Your task to perform on an android device: open app "eBay: The shopping marketplace" Image 0: 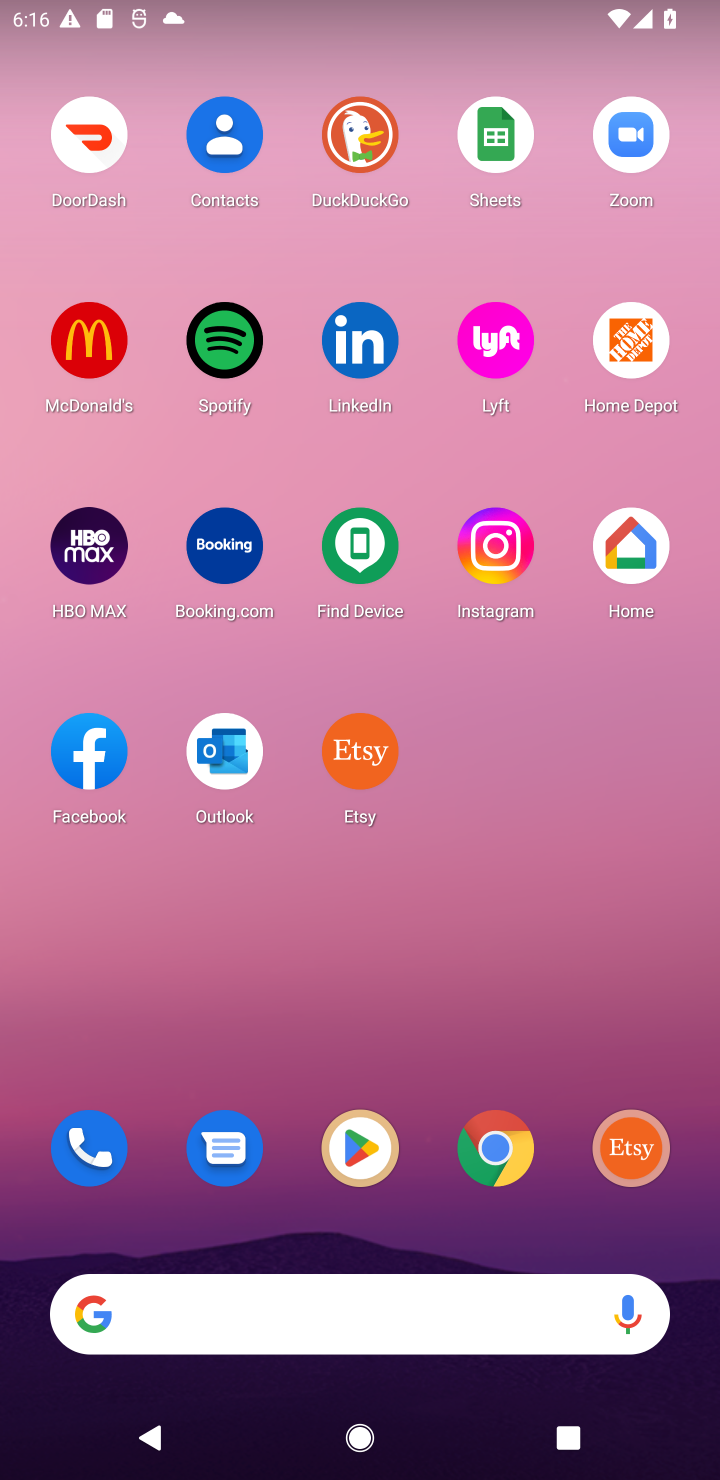
Step 0: drag from (452, 1234) to (516, 174)
Your task to perform on an android device: open app "eBay: The shopping marketplace" Image 1: 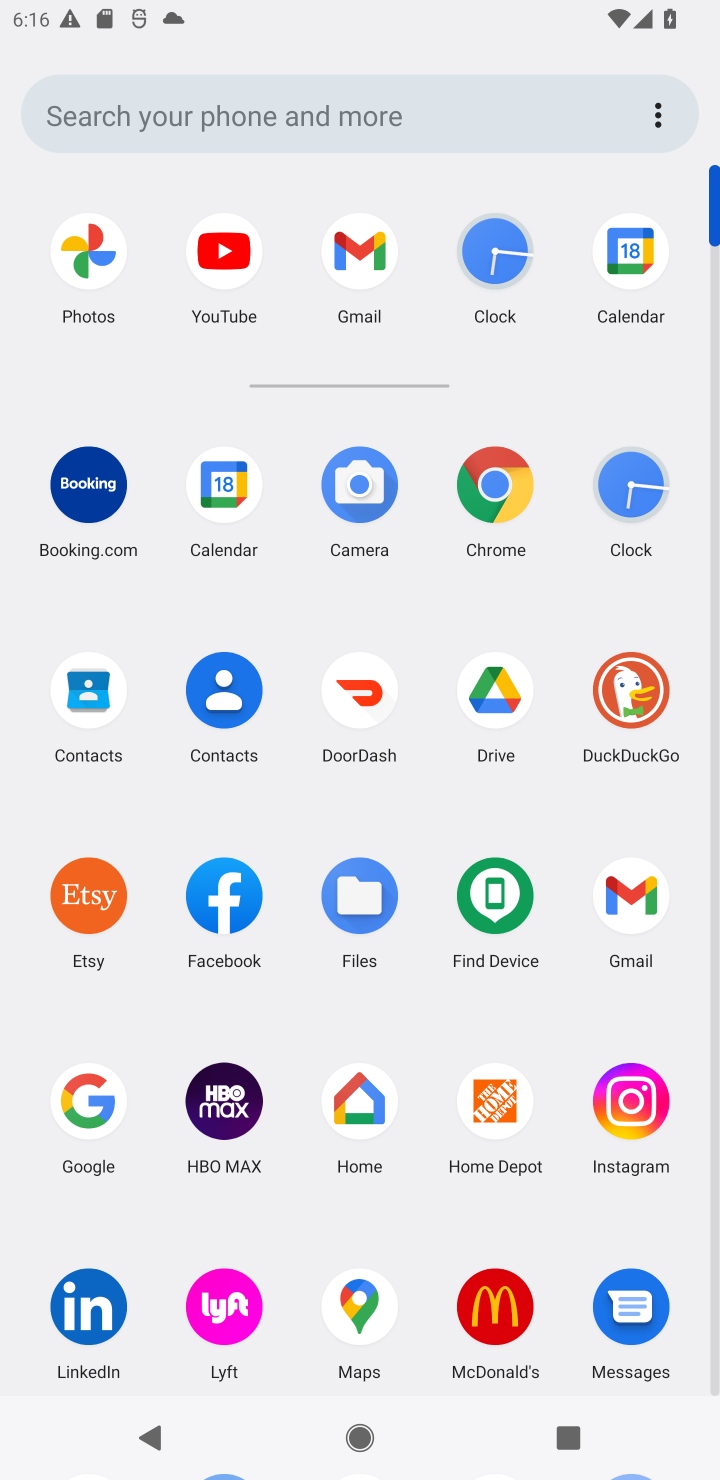
Step 1: drag from (444, 1232) to (442, 498)
Your task to perform on an android device: open app "eBay: The shopping marketplace" Image 2: 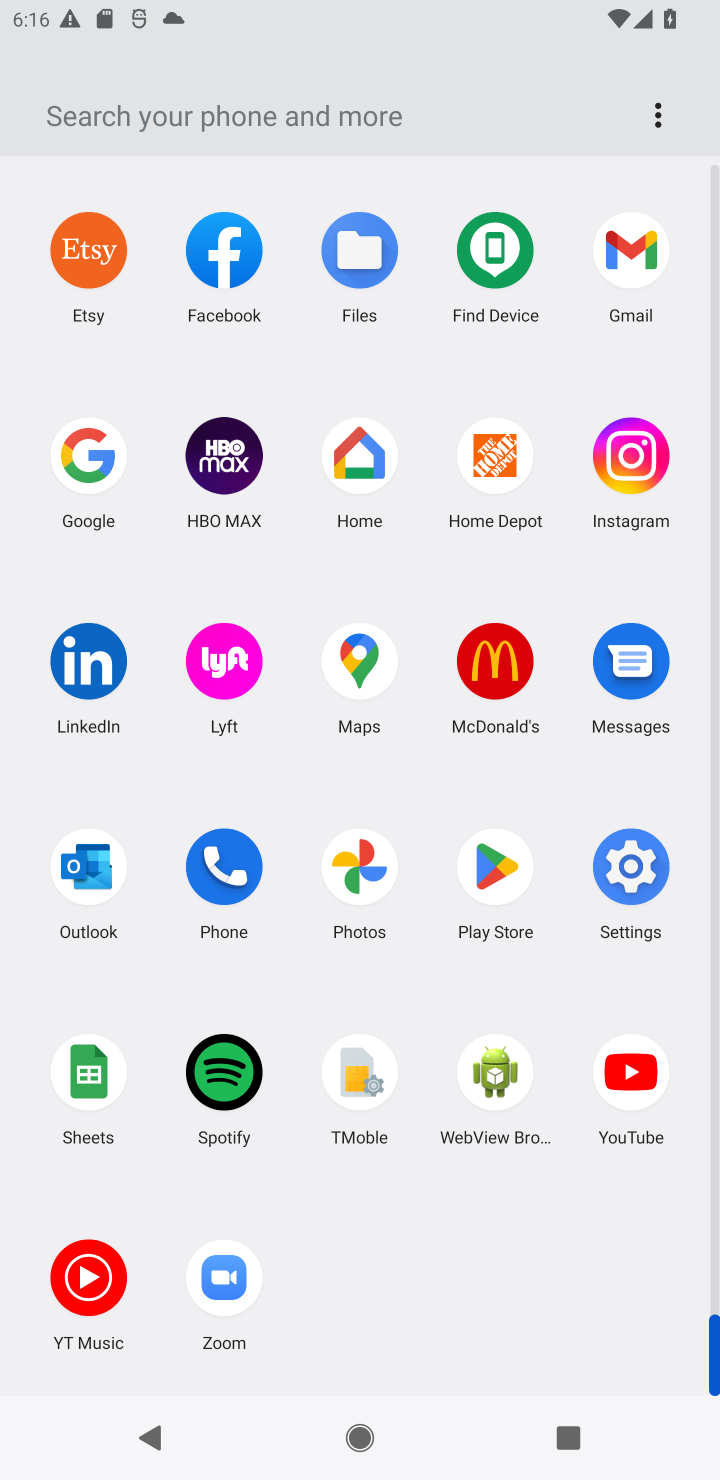
Step 2: click (479, 870)
Your task to perform on an android device: open app "eBay: The shopping marketplace" Image 3: 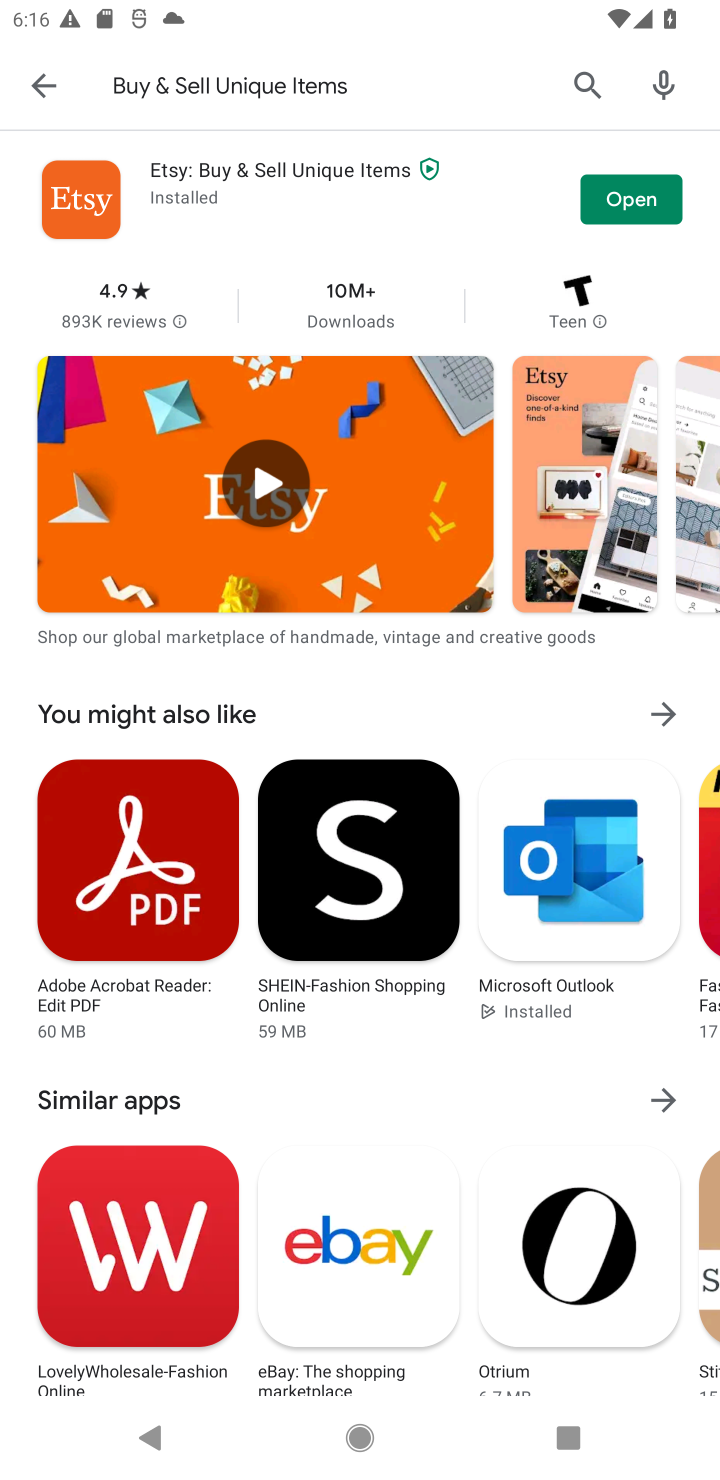
Step 3: press back button
Your task to perform on an android device: open app "eBay: The shopping marketplace" Image 4: 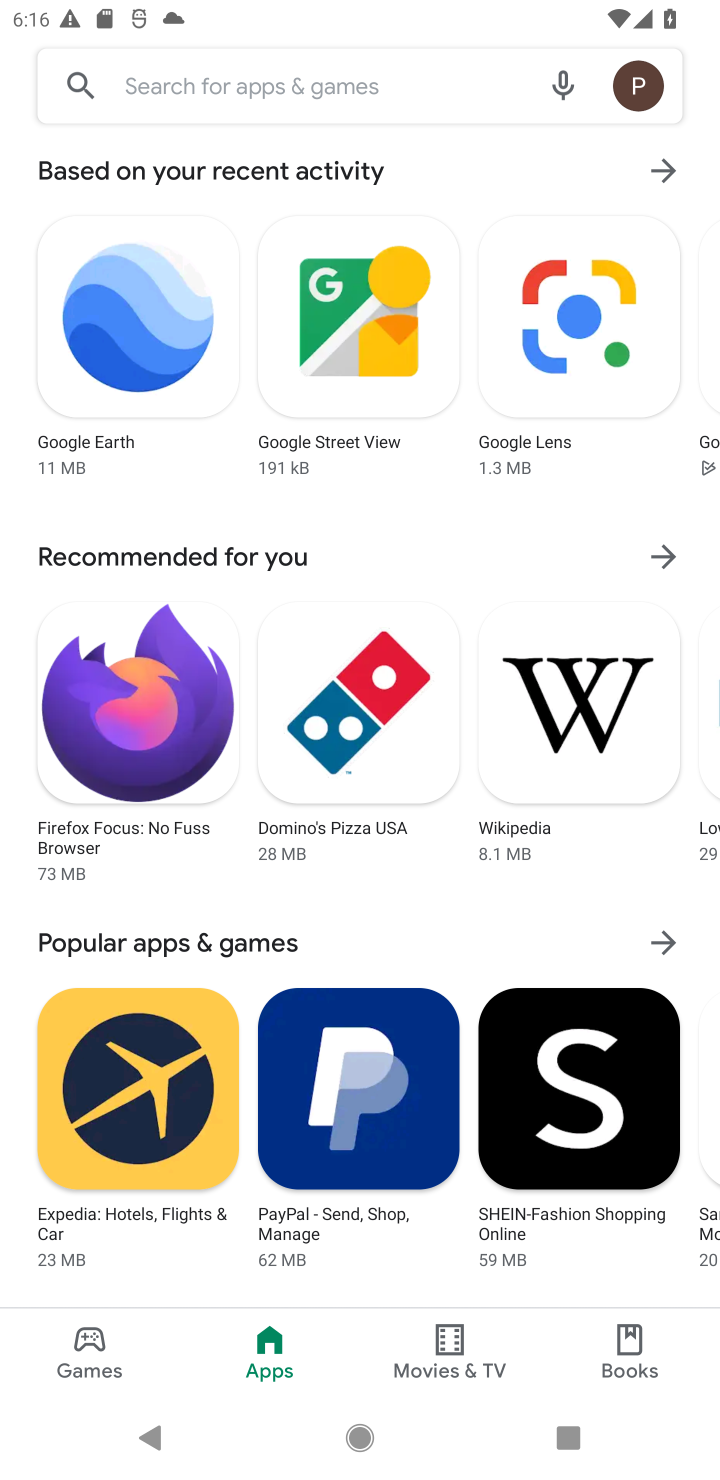
Step 4: click (263, 91)
Your task to perform on an android device: open app "eBay: The shopping marketplace" Image 5: 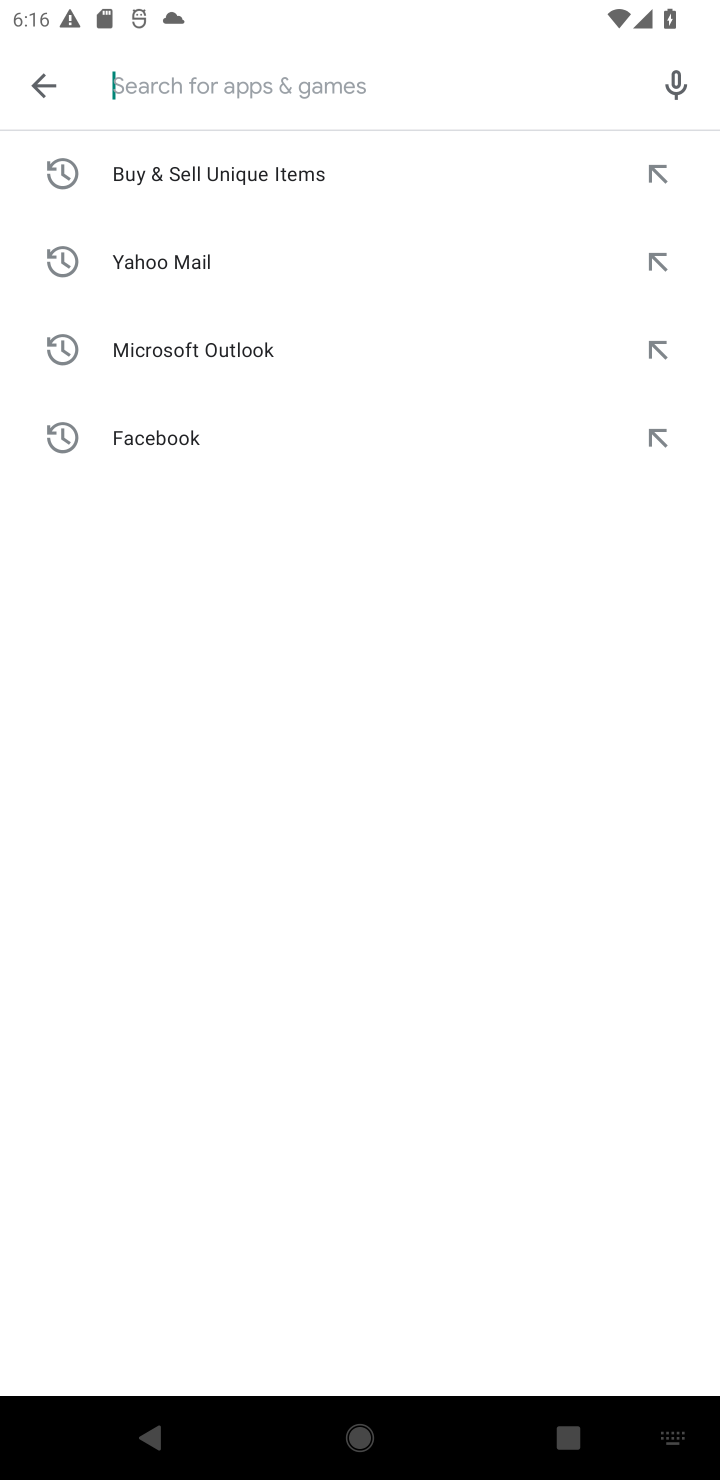
Step 5: type "eBay: The shopping marketplace"
Your task to perform on an android device: open app "eBay: The shopping marketplace" Image 6: 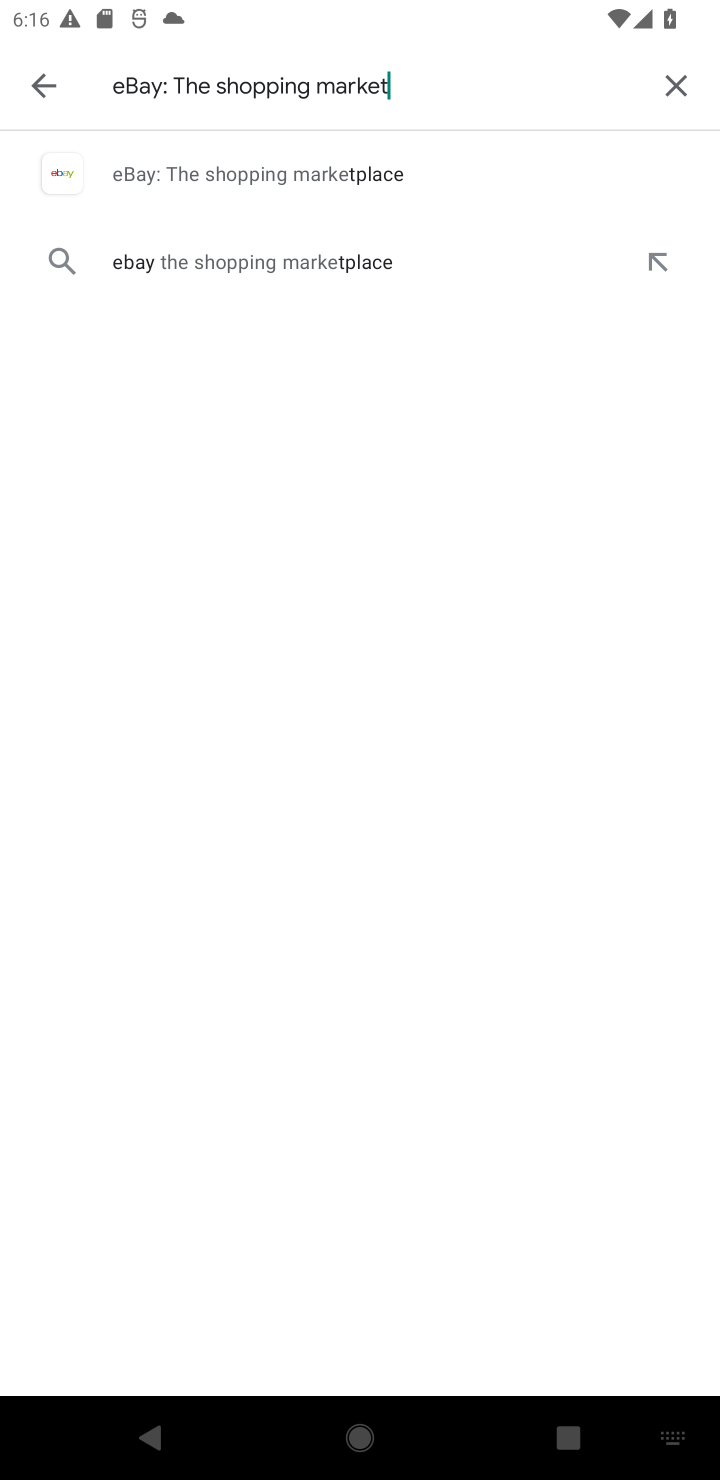
Step 6: press enter
Your task to perform on an android device: open app "eBay: The shopping marketplace" Image 7: 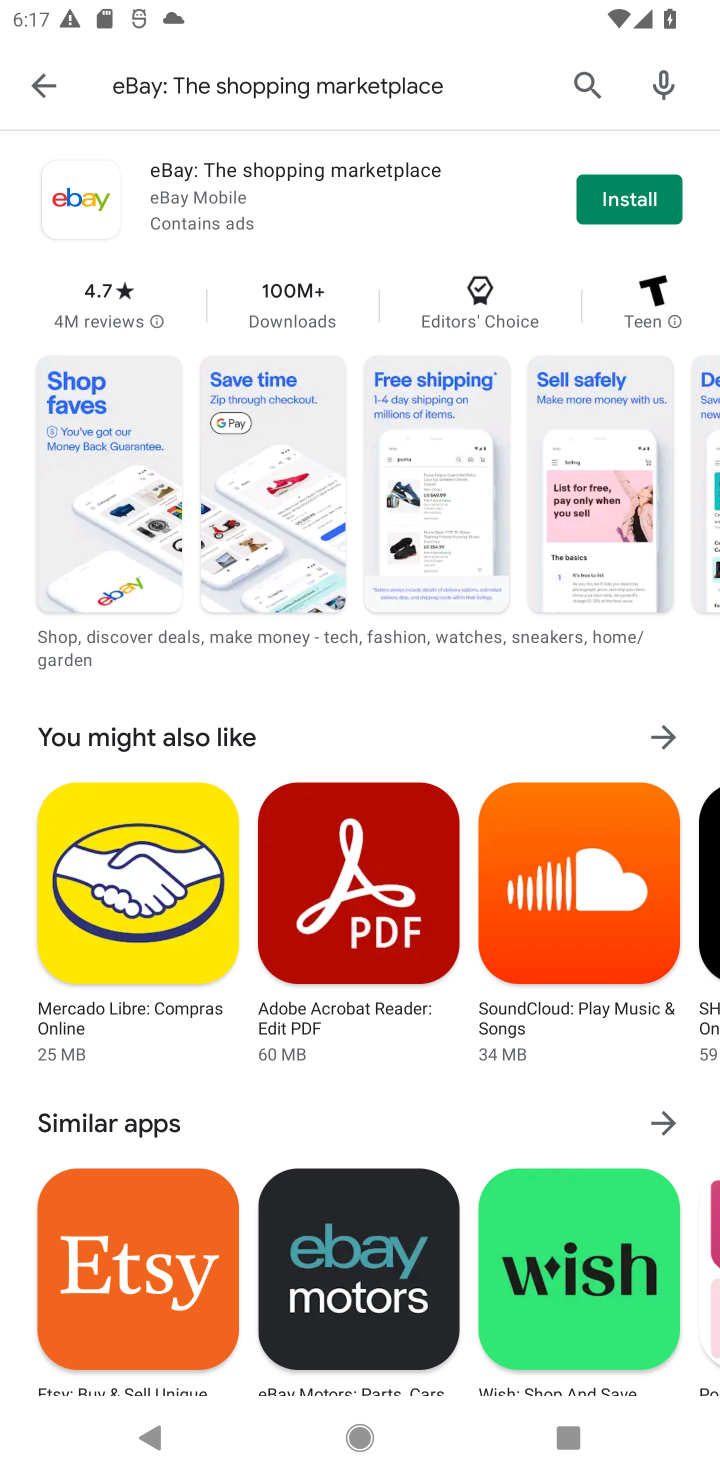
Step 7: task complete